Your task to perform on an android device: Open Youtube and go to "Your channel" Image 0: 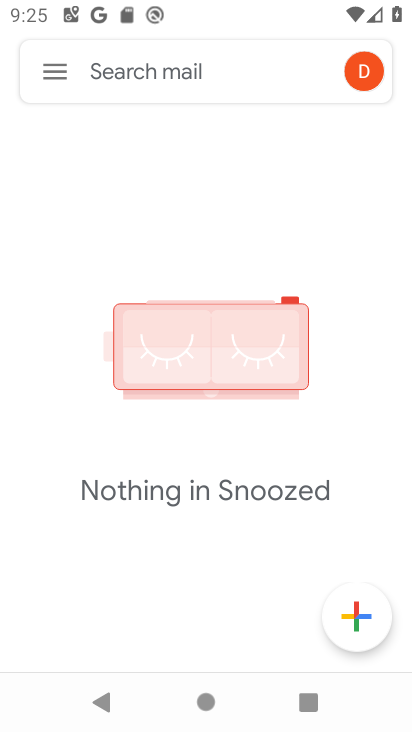
Step 0: press home button
Your task to perform on an android device: Open Youtube and go to "Your channel" Image 1: 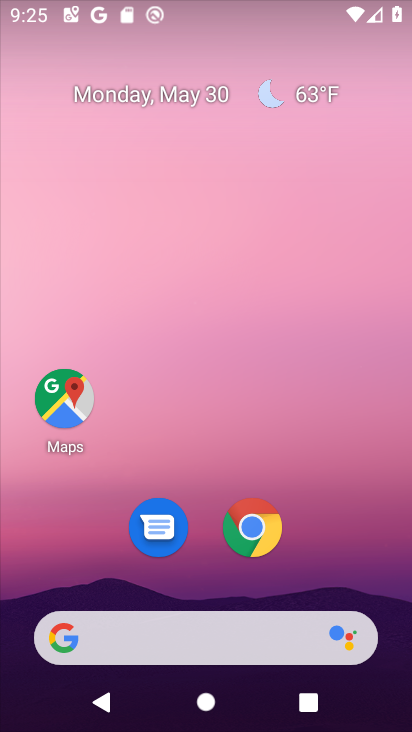
Step 1: drag from (291, 592) to (334, 390)
Your task to perform on an android device: Open Youtube and go to "Your channel" Image 2: 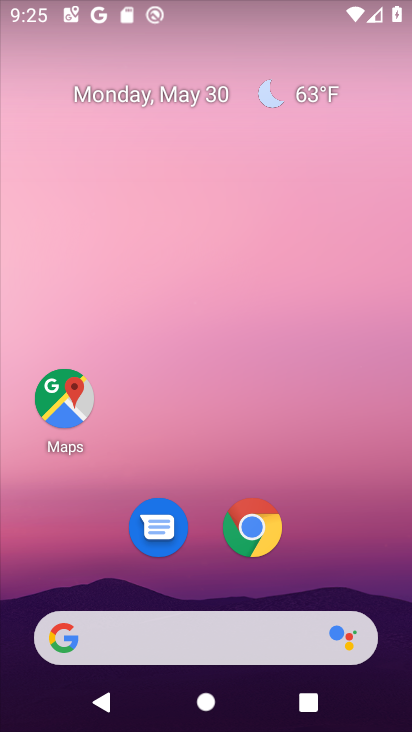
Step 2: drag from (368, 508) to (390, 284)
Your task to perform on an android device: Open Youtube and go to "Your channel" Image 3: 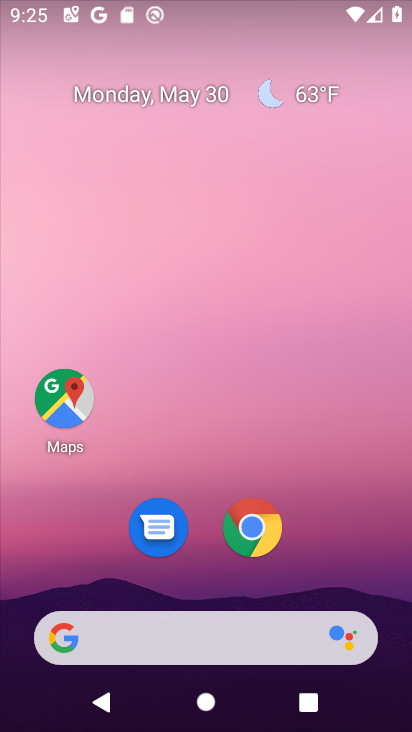
Step 3: drag from (289, 580) to (354, 133)
Your task to perform on an android device: Open Youtube and go to "Your channel" Image 4: 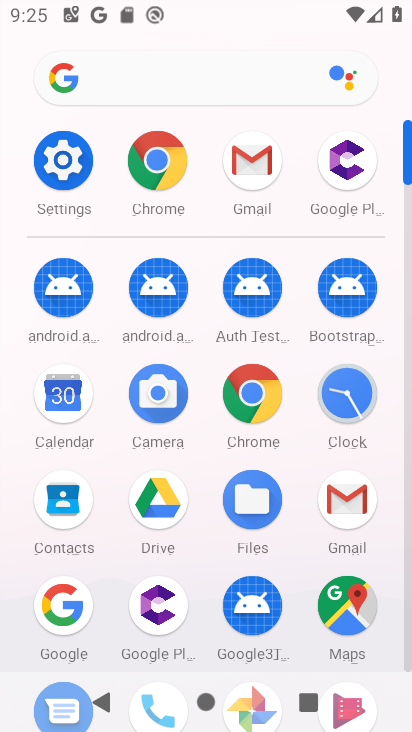
Step 4: drag from (322, 621) to (361, 325)
Your task to perform on an android device: Open Youtube and go to "Your channel" Image 5: 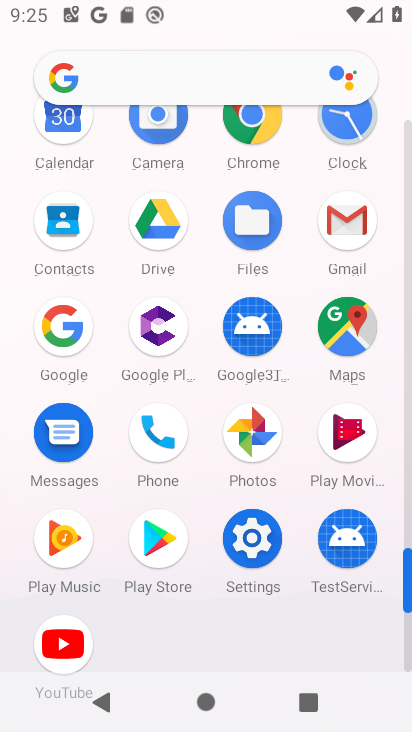
Step 5: click (50, 645)
Your task to perform on an android device: Open Youtube and go to "Your channel" Image 6: 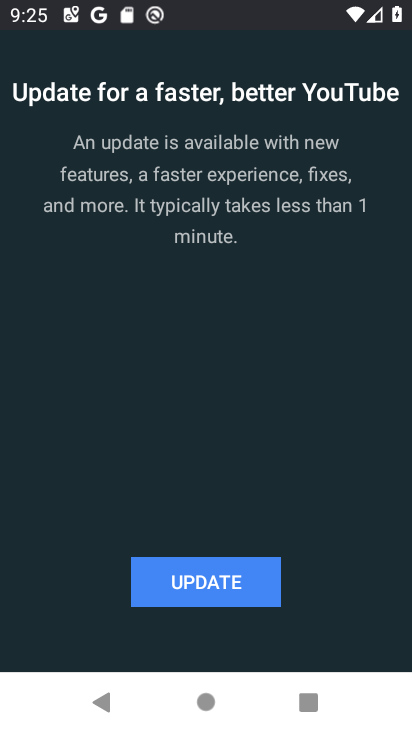
Step 6: task complete